Your task to perform on an android device: turn off javascript in the chrome app Image 0: 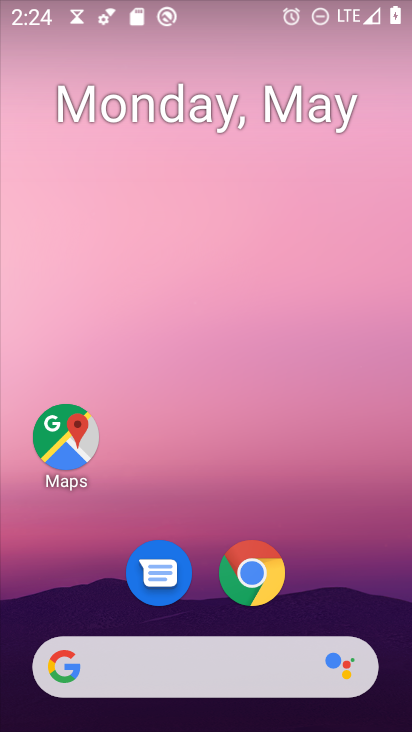
Step 0: drag from (243, 592) to (266, 172)
Your task to perform on an android device: turn off javascript in the chrome app Image 1: 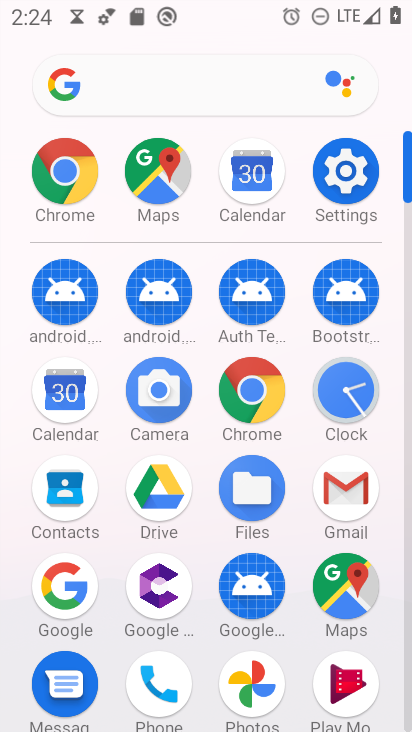
Step 1: click (252, 396)
Your task to perform on an android device: turn off javascript in the chrome app Image 2: 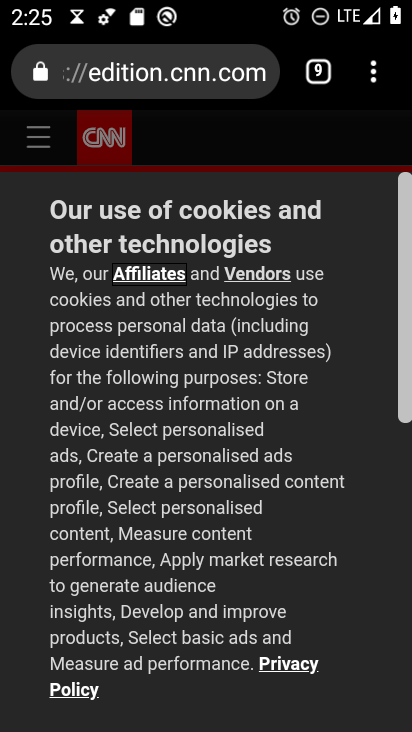
Step 2: click (362, 64)
Your task to perform on an android device: turn off javascript in the chrome app Image 3: 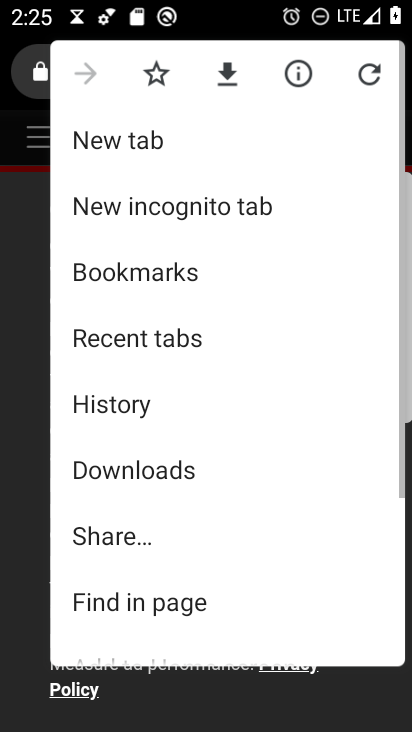
Step 3: drag from (185, 550) to (205, 102)
Your task to perform on an android device: turn off javascript in the chrome app Image 4: 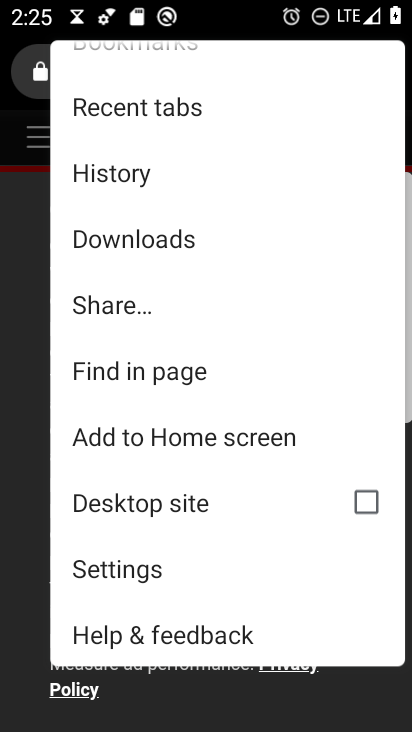
Step 4: click (181, 579)
Your task to perform on an android device: turn off javascript in the chrome app Image 5: 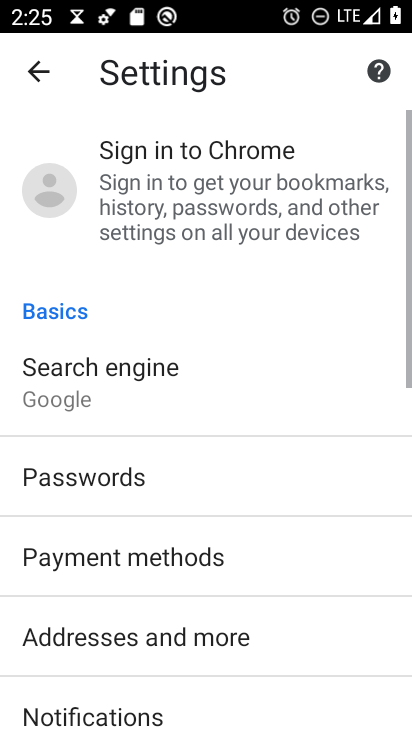
Step 5: drag from (188, 622) to (170, 121)
Your task to perform on an android device: turn off javascript in the chrome app Image 6: 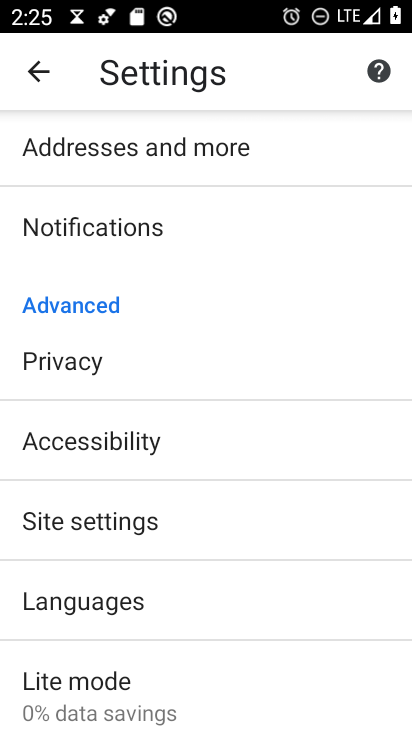
Step 6: click (179, 534)
Your task to perform on an android device: turn off javascript in the chrome app Image 7: 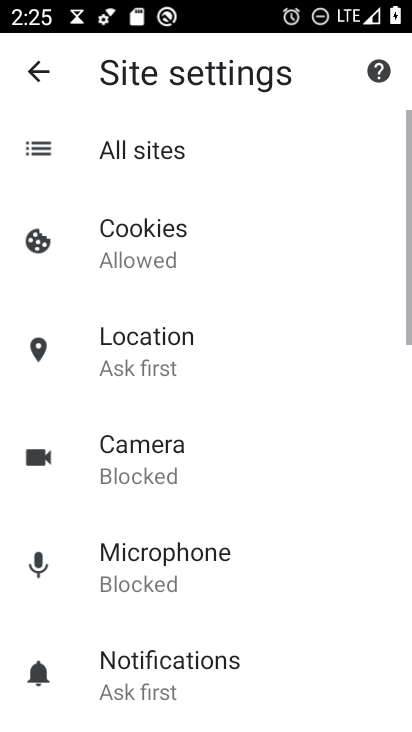
Step 7: drag from (230, 691) to (190, 253)
Your task to perform on an android device: turn off javascript in the chrome app Image 8: 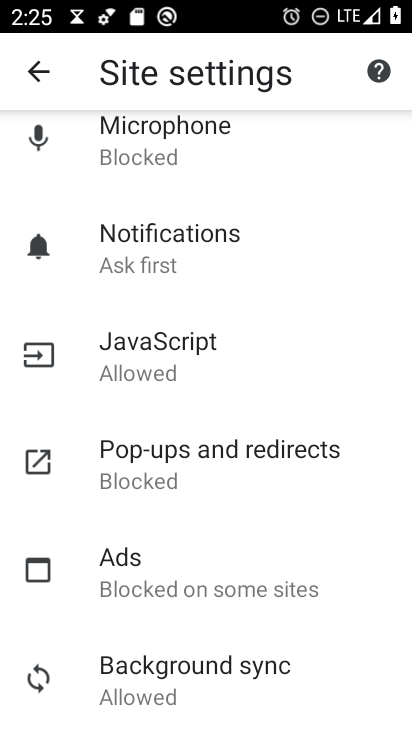
Step 8: click (196, 373)
Your task to perform on an android device: turn off javascript in the chrome app Image 9: 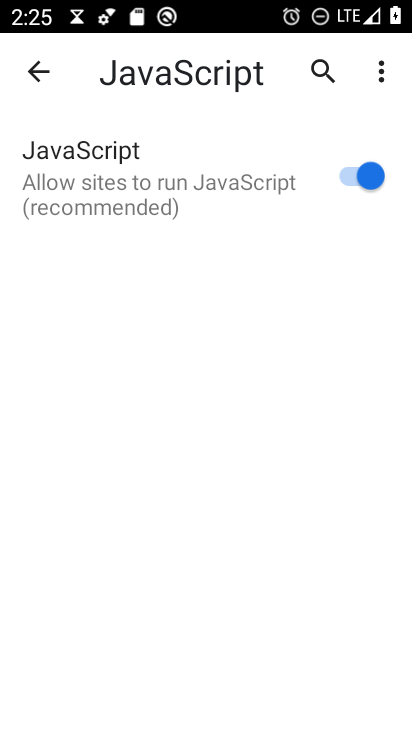
Step 9: click (353, 175)
Your task to perform on an android device: turn off javascript in the chrome app Image 10: 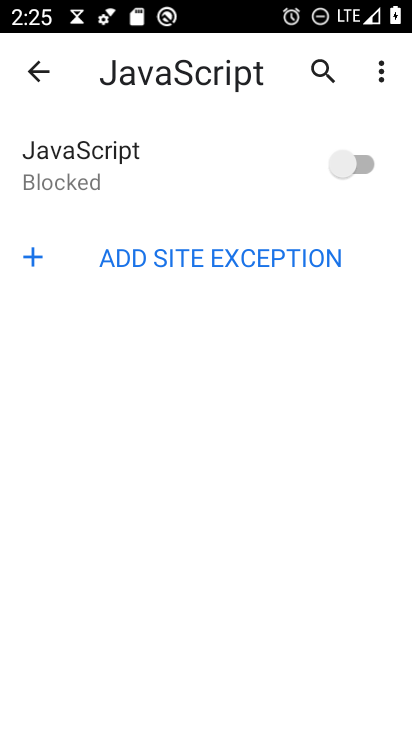
Step 10: task complete